Your task to perform on an android device: Go to eBay Image 0: 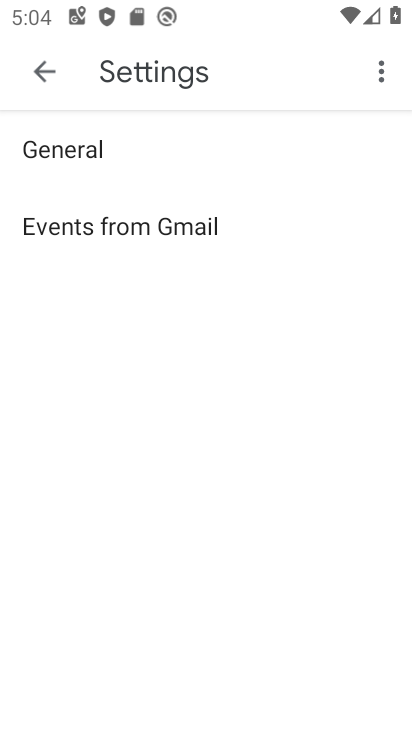
Step 0: press back button
Your task to perform on an android device: Go to eBay Image 1: 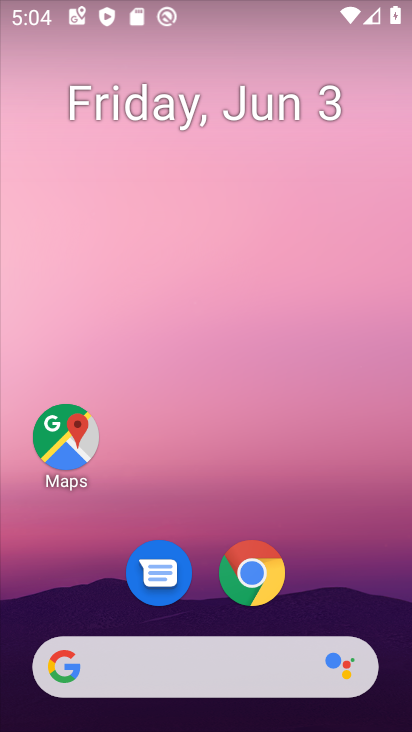
Step 1: click (244, 587)
Your task to perform on an android device: Go to eBay Image 2: 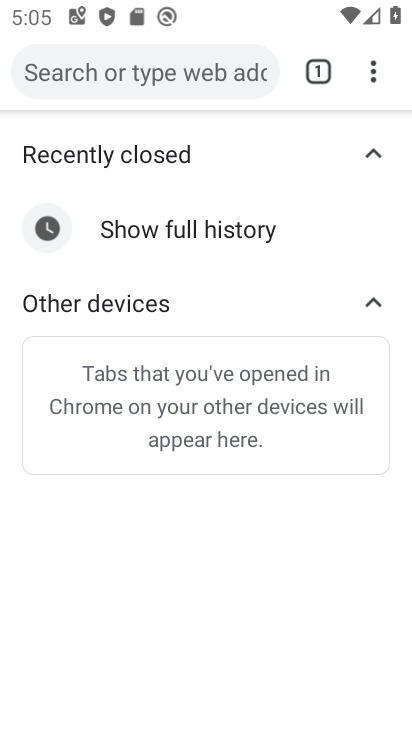
Step 2: press back button
Your task to perform on an android device: Go to eBay Image 3: 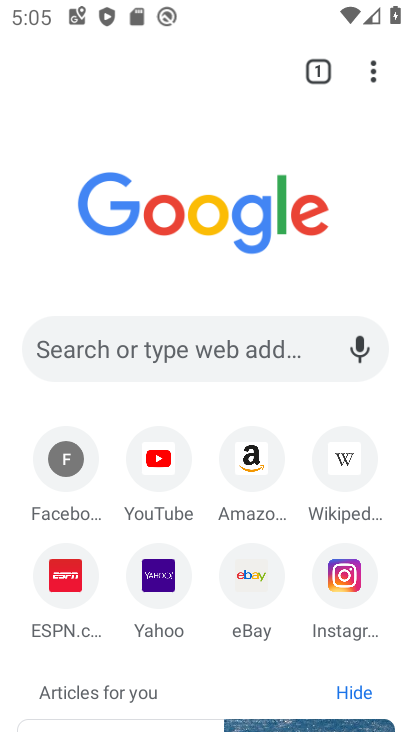
Step 3: click (255, 578)
Your task to perform on an android device: Go to eBay Image 4: 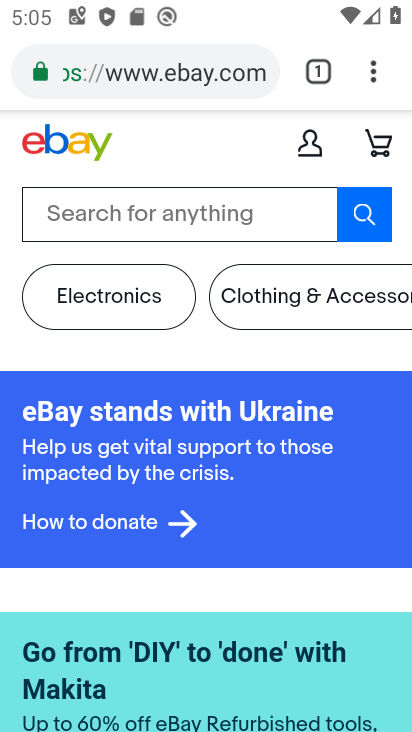
Step 4: task complete